Your task to perform on an android device: check storage Image 0: 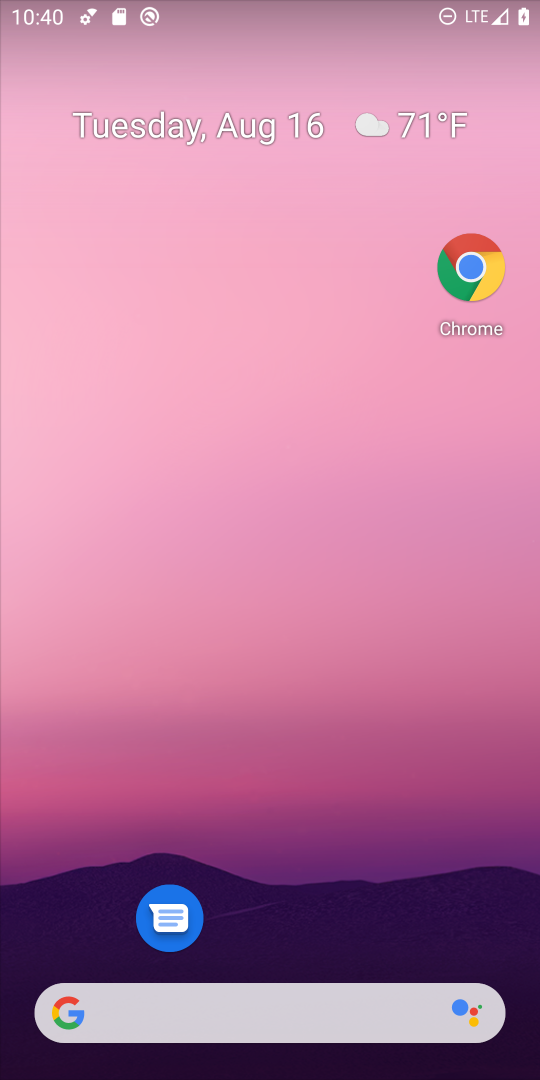
Step 0: click (403, 200)
Your task to perform on an android device: check storage Image 1: 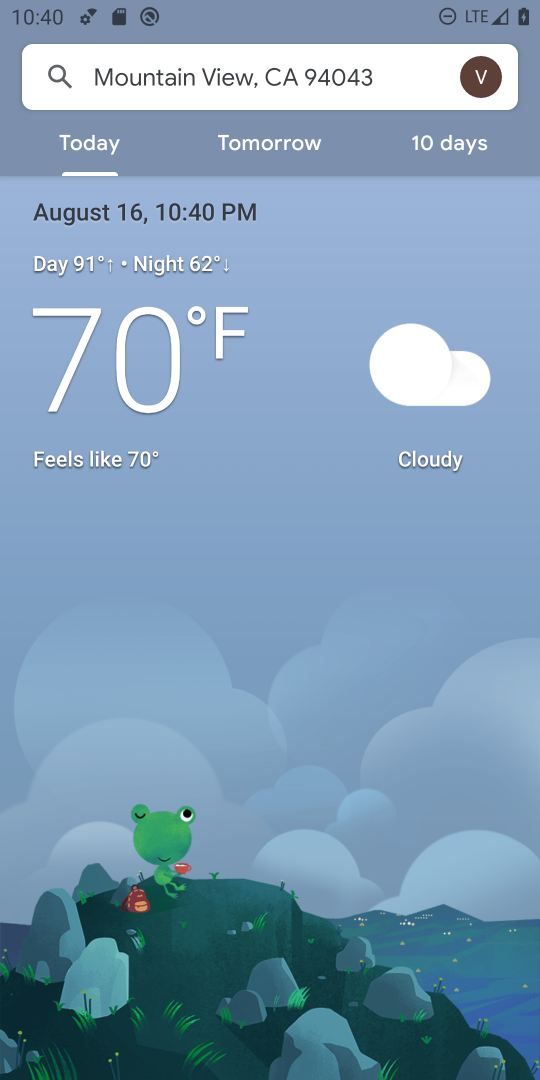
Step 1: press home button
Your task to perform on an android device: check storage Image 2: 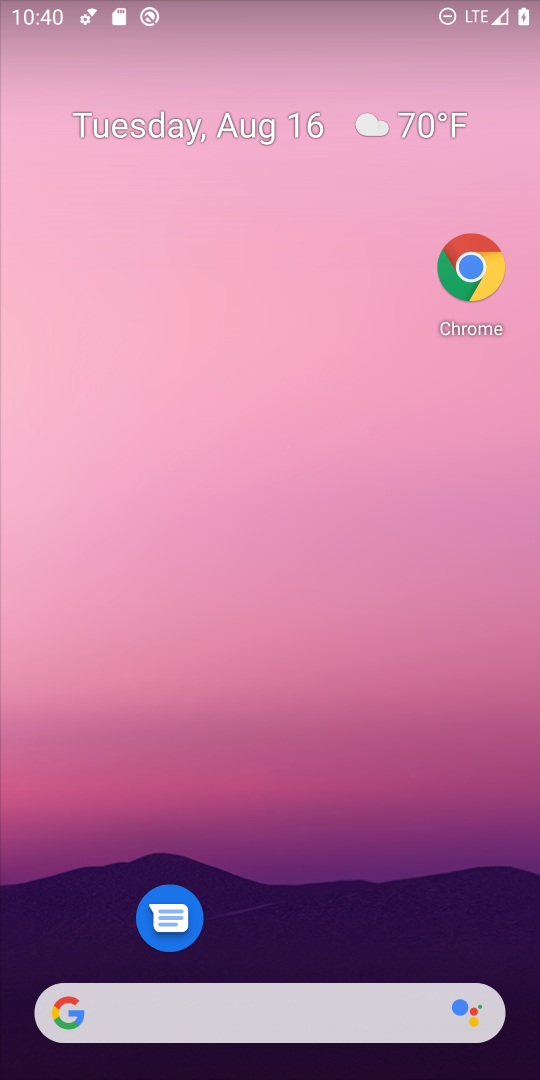
Step 2: drag from (317, 511) to (297, 133)
Your task to perform on an android device: check storage Image 3: 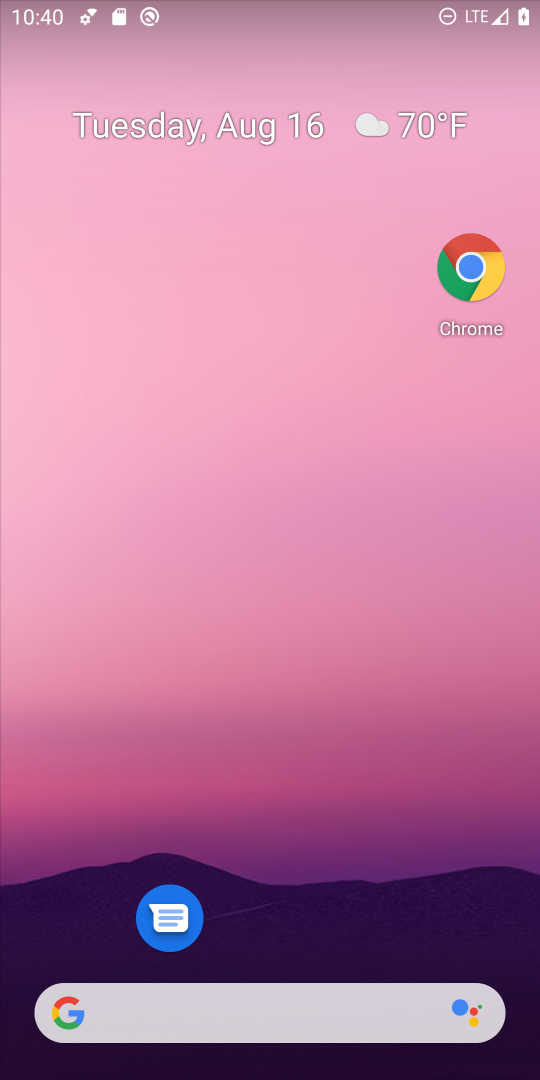
Step 3: drag from (250, 979) to (272, 206)
Your task to perform on an android device: check storage Image 4: 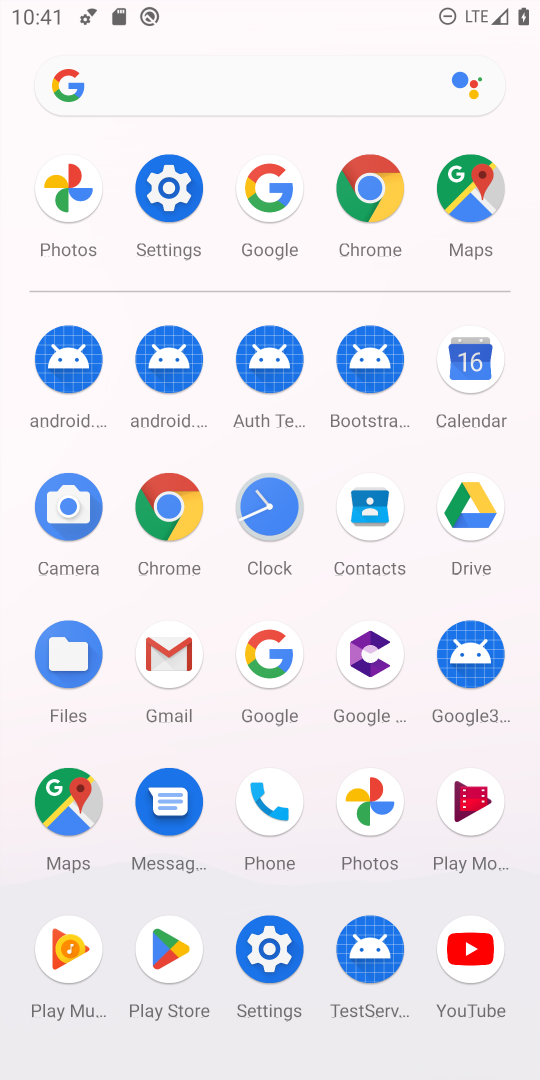
Step 4: click (183, 224)
Your task to perform on an android device: check storage Image 5: 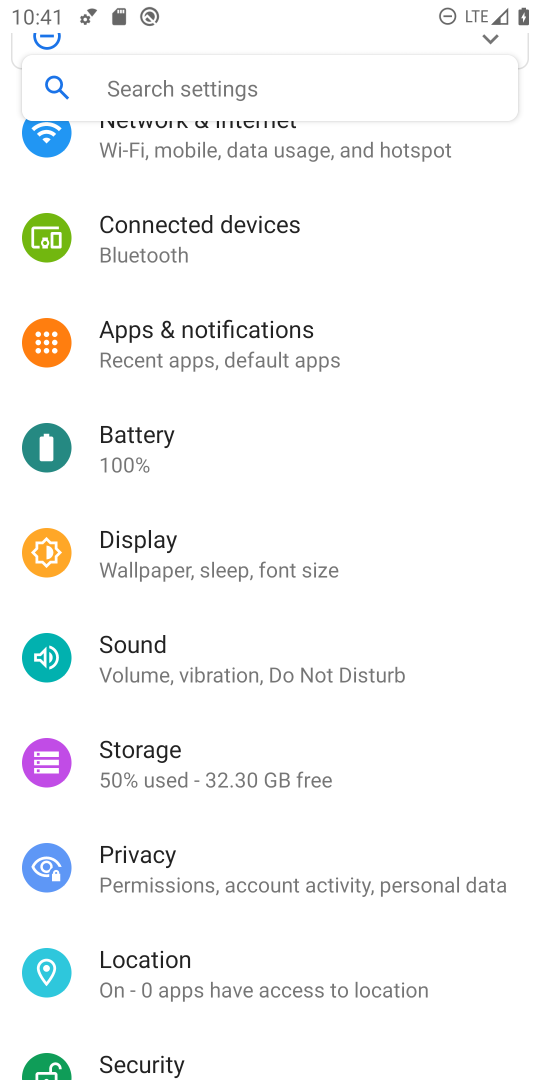
Step 5: click (196, 767)
Your task to perform on an android device: check storage Image 6: 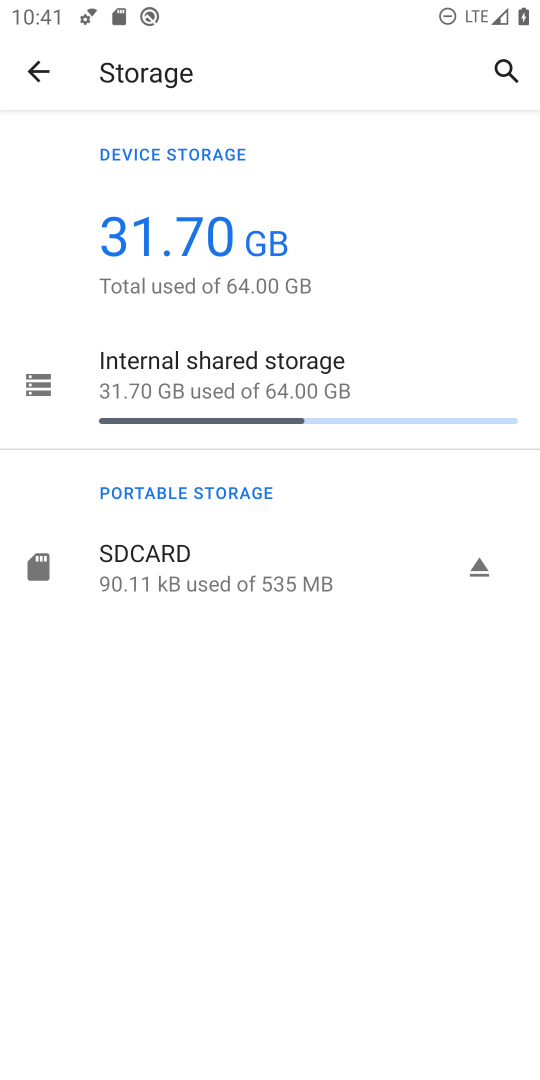
Step 6: click (251, 402)
Your task to perform on an android device: check storage Image 7: 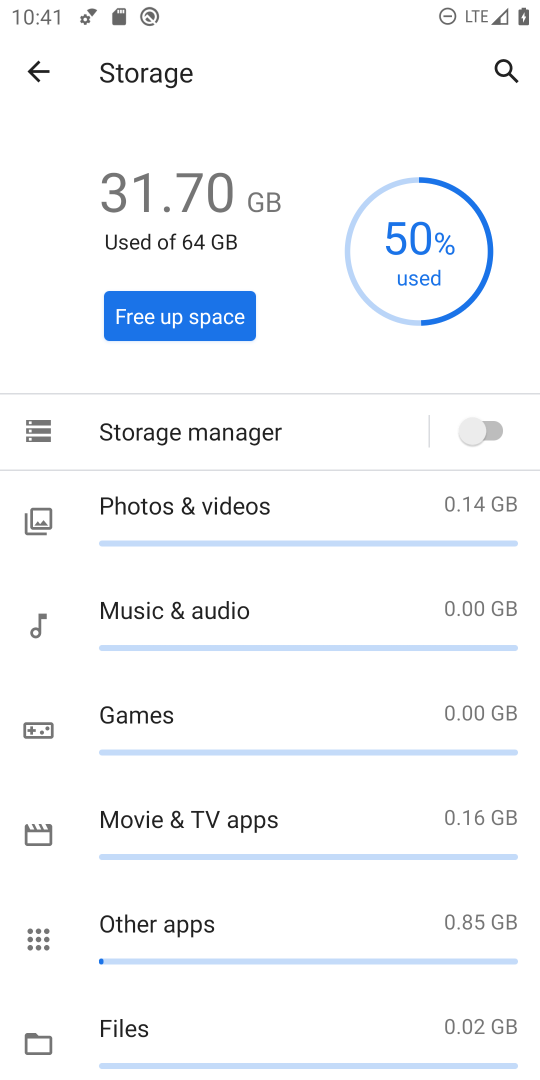
Step 7: task complete